Your task to perform on an android device: Toggle the flashlight Image 0: 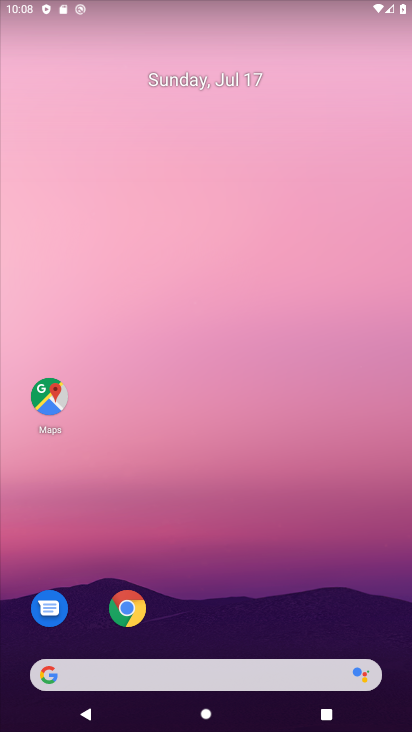
Step 0: drag from (333, 611) to (133, 64)
Your task to perform on an android device: Toggle the flashlight Image 1: 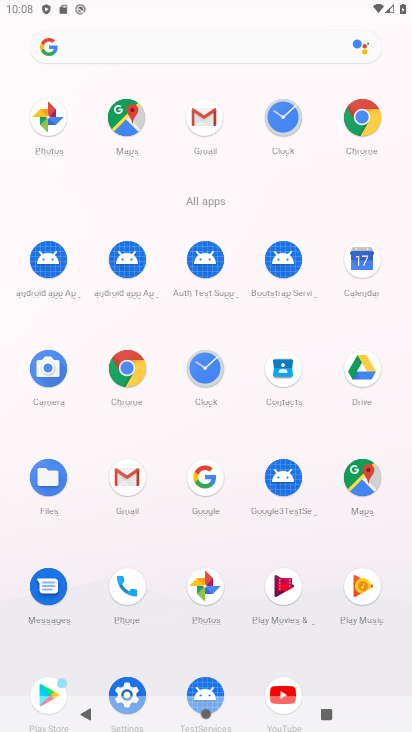
Step 1: click (124, 695)
Your task to perform on an android device: Toggle the flashlight Image 2: 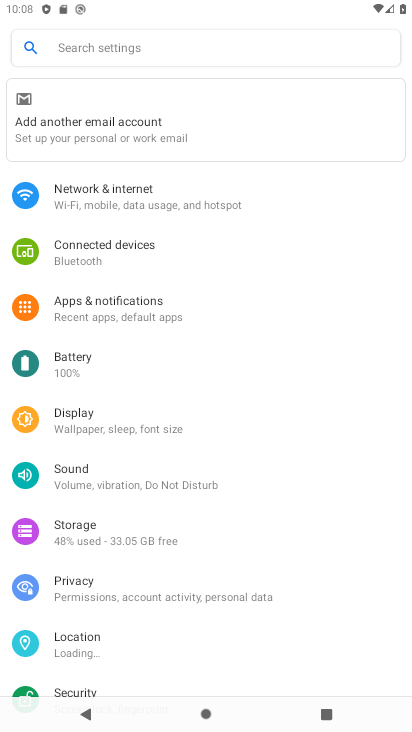
Step 2: task complete